Your task to perform on an android device: Is it going to rain this weekend? Image 0: 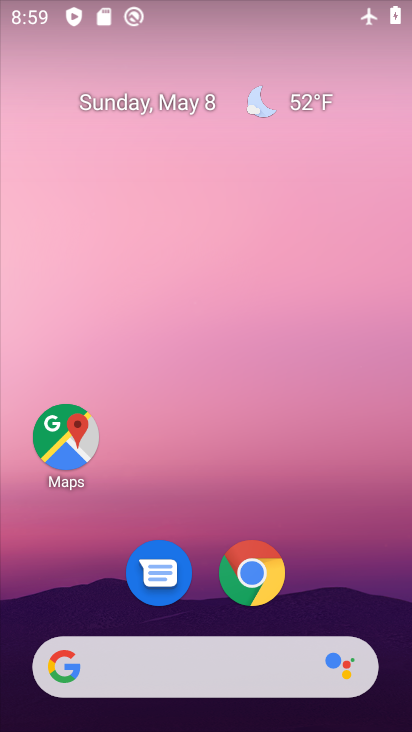
Step 0: click (256, 97)
Your task to perform on an android device: Is it going to rain this weekend? Image 1: 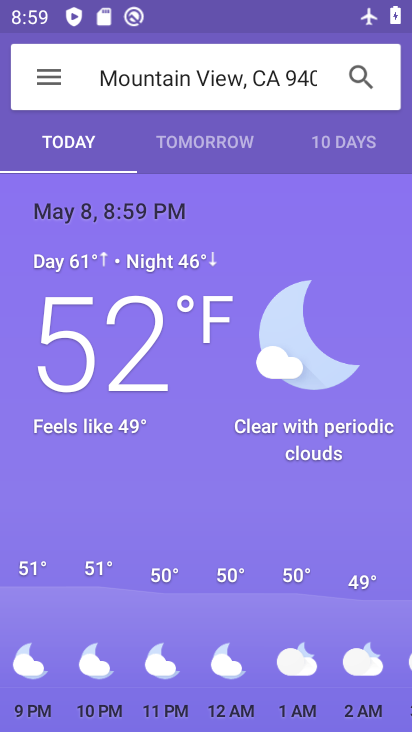
Step 1: click (356, 137)
Your task to perform on an android device: Is it going to rain this weekend? Image 2: 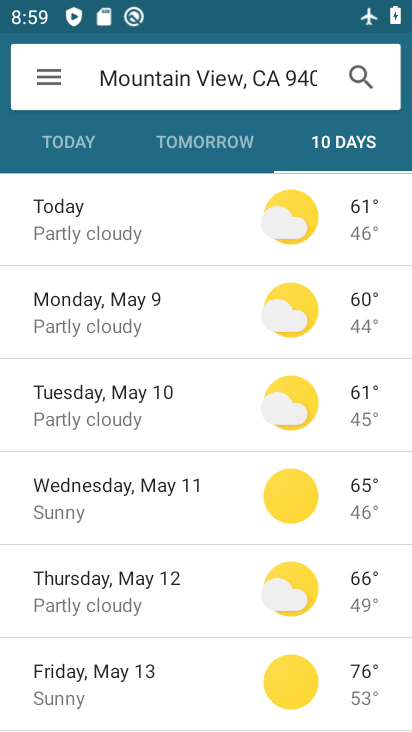
Step 2: drag from (87, 567) to (68, 220)
Your task to perform on an android device: Is it going to rain this weekend? Image 3: 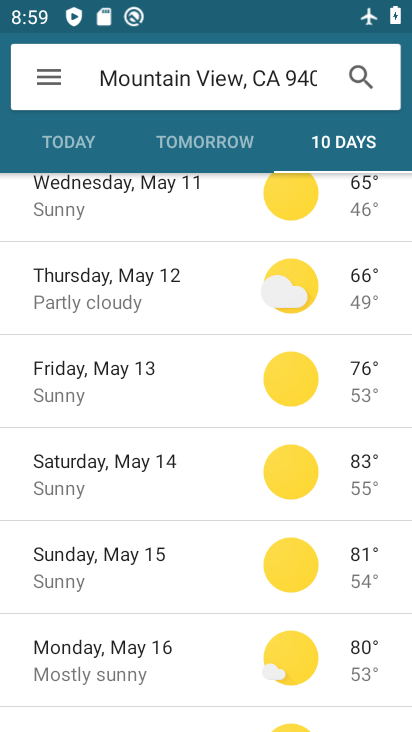
Step 3: click (86, 466)
Your task to perform on an android device: Is it going to rain this weekend? Image 4: 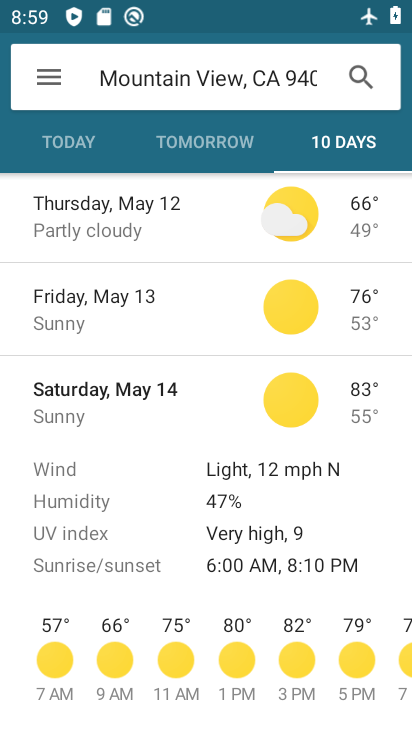
Step 4: task complete